Your task to perform on an android device: Open Google Chrome and click the shortcut for Amazon.com Image 0: 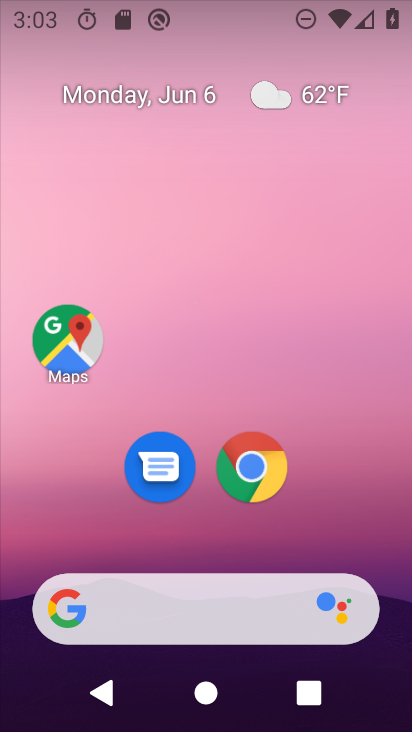
Step 0: click (266, 466)
Your task to perform on an android device: Open Google Chrome and click the shortcut for Amazon.com Image 1: 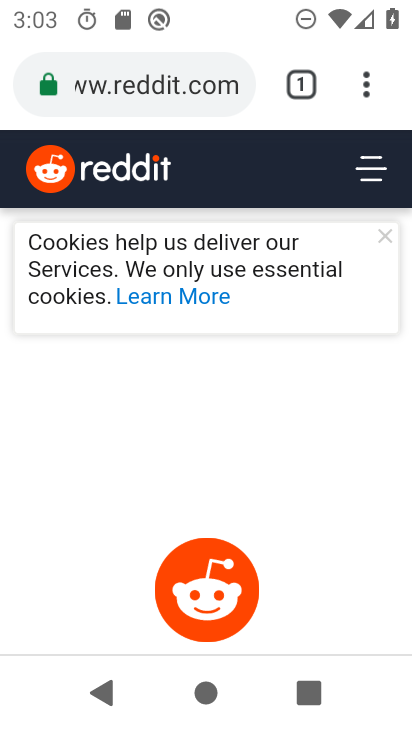
Step 1: press back button
Your task to perform on an android device: Open Google Chrome and click the shortcut for Amazon.com Image 2: 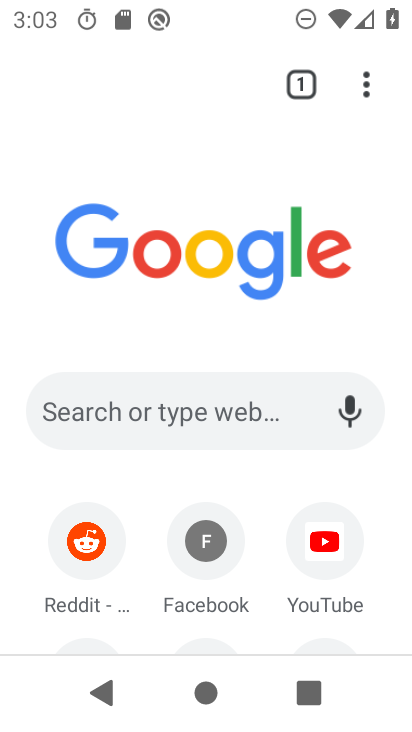
Step 2: drag from (240, 572) to (227, 442)
Your task to perform on an android device: Open Google Chrome and click the shortcut for Amazon.com Image 3: 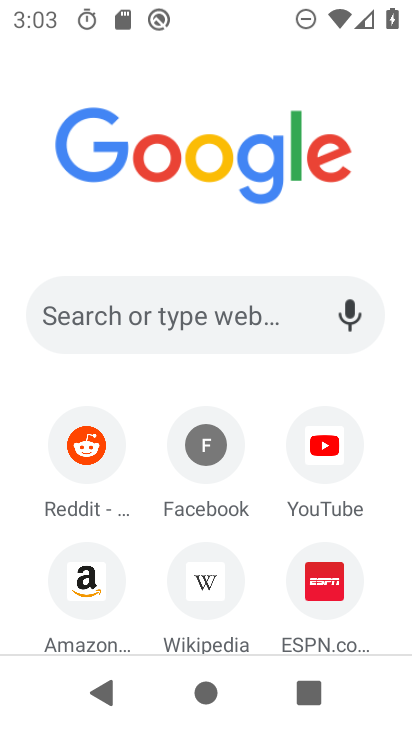
Step 3: click (93, 595)
Your task to perform on an android device: Open Google Chrome and click the shortcut for Amazon.com Image 4: 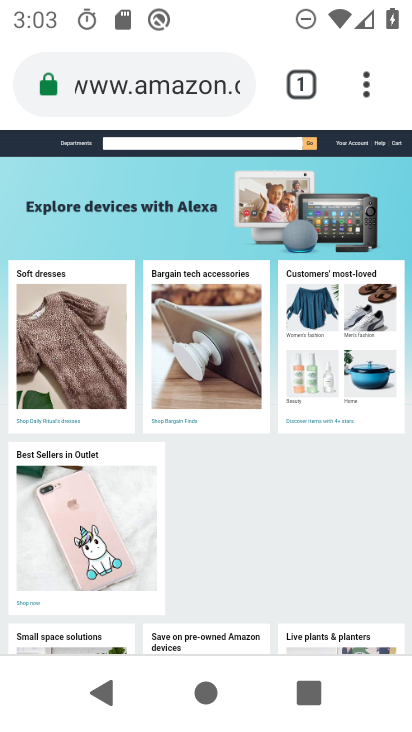
Step 4: task complete